Your task to perform on an android device: add a label to a message in the gmail app Image 0: 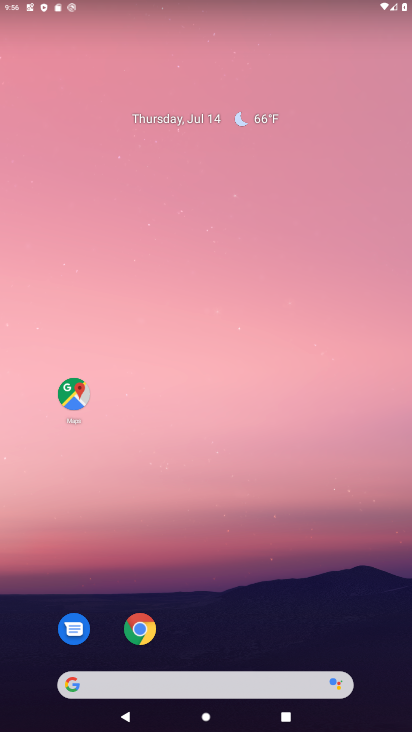
Step 0: press home button
Your task to perform on an android device: add a label to a message in the gmail app Image 1: 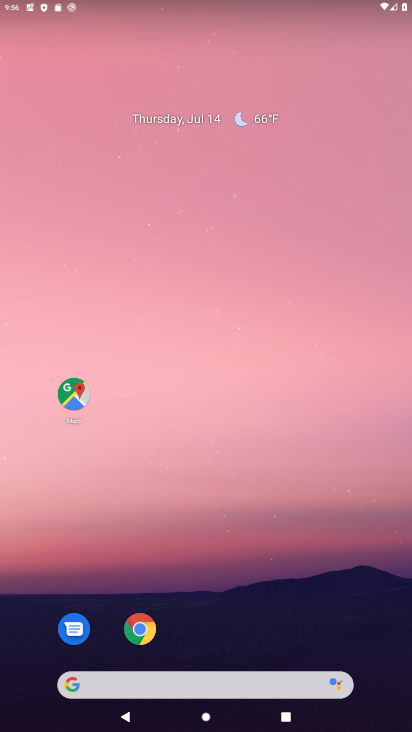
Step 1: drag from (252, 591) to (267, 50)
Your task to perform on an android device: add a label to a message in the gmail app Image 2: 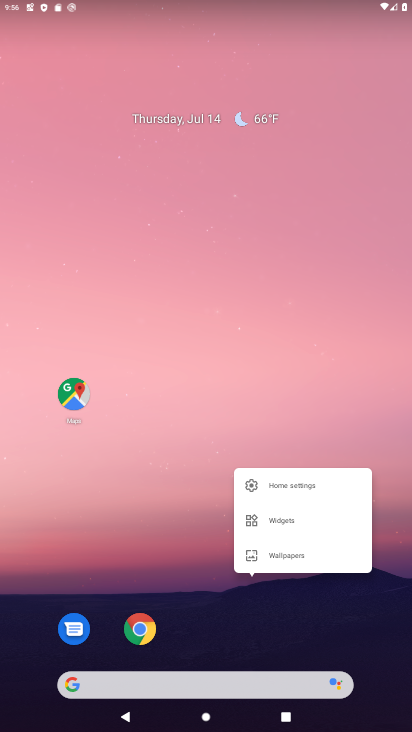
Step 2: drag from (184, 535) to (268, 6)
Your task to perform on an android device: add a label to a message in the gmail app Image 3: 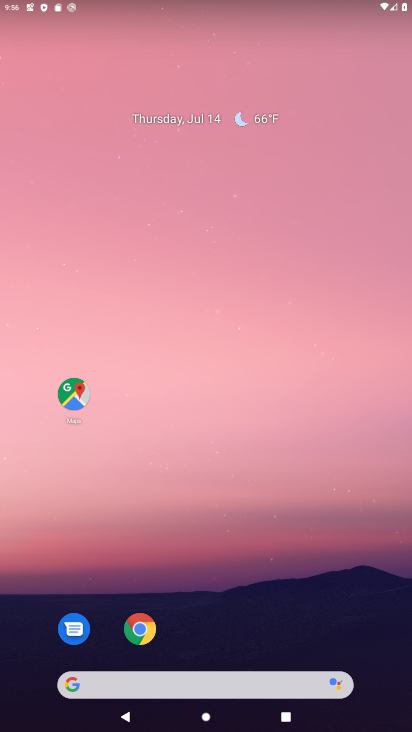
Step 3: drag from (268, 582) to (224, 12)
Your task to perform on an android device: add a label to a message in the gmail app Image 4: 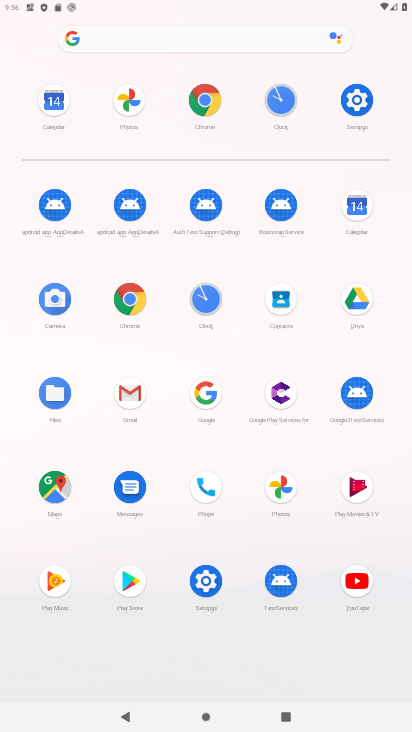
Step 4: click (139, 392)
Your task to perform on an android device: add a label to a message in the gmail app Image 5: 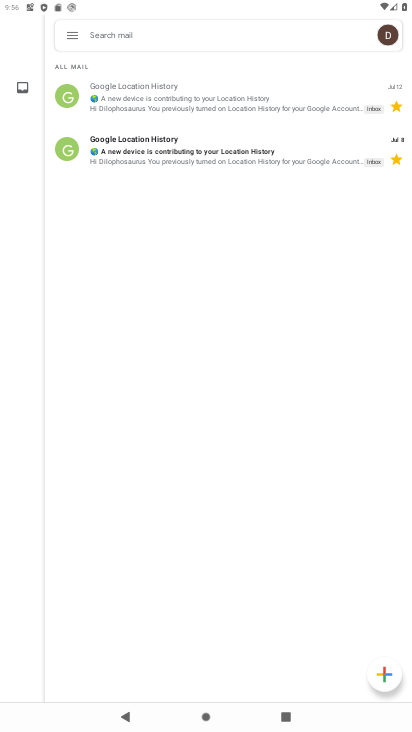
Step 5: click (181, 107)
Your task to perform on an android device: add a label to a message in the gmail app Image 6: 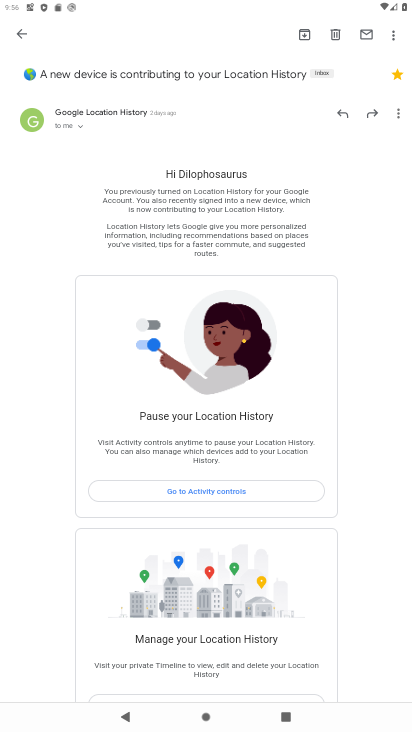
Step 6: click (399, 33)
Your task to perform on an android device: add a label to a message in the gmail app Image 7: 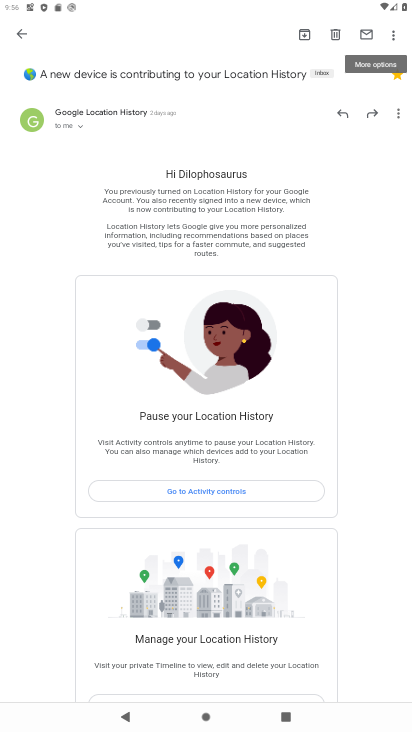
Step 7: click (399, 33)
Your task to perform on an android device: add a label to a message in the gmail app Image 8: 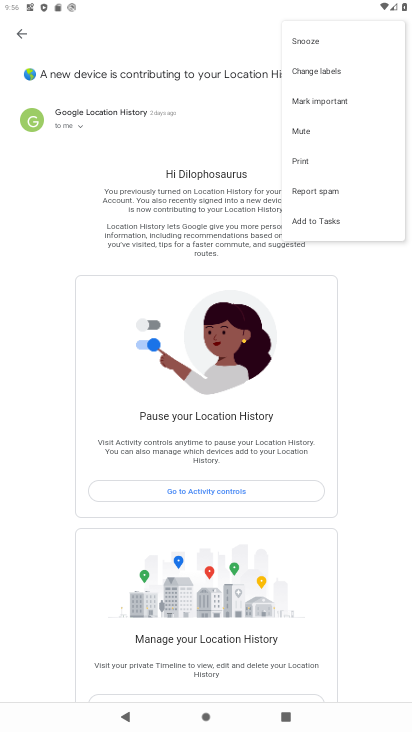
Step 8: click (316, 66)
Your task to perform on an android device: add a label to a message in the gmail app Image 9: 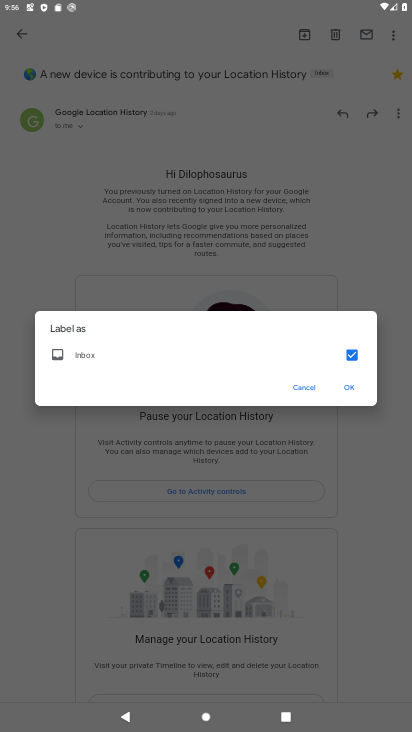
Step 9: click (353, 386)
Your task to perform on an android device: add a label to a message in the gmail app Image 10: 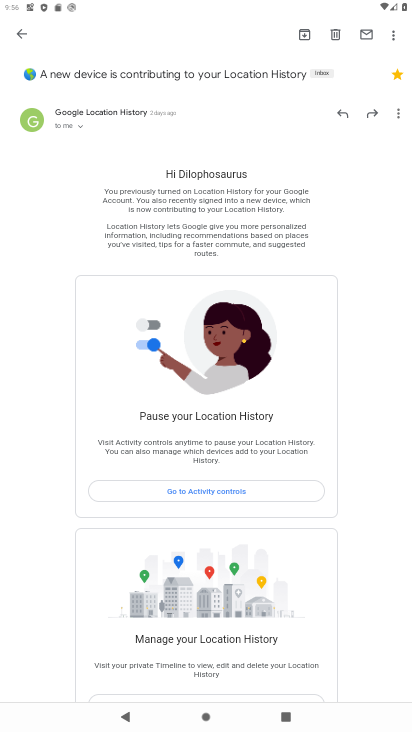
Step 10: task complete